Your task to perform on an android device: Open the web browser Image 0: 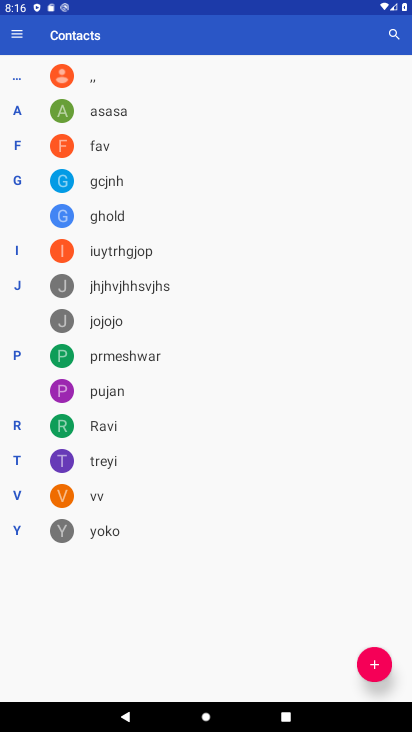
Step 0: press home button
Your task to perform on an android device: Open the web browser Image 1: 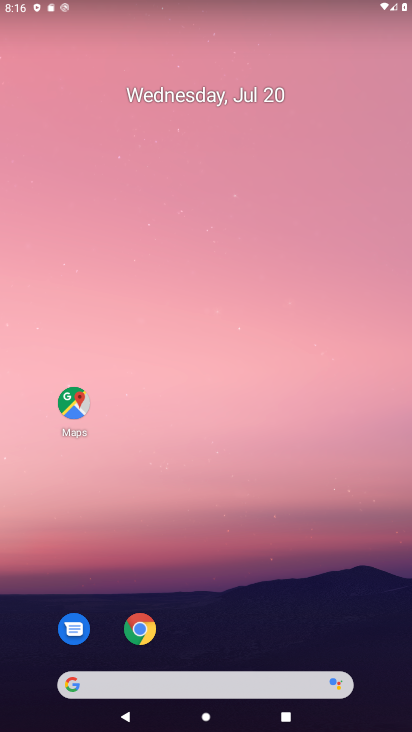
Step 1: click (131, 634)
Your task to perform on an android device: Open the web browser Image 2: 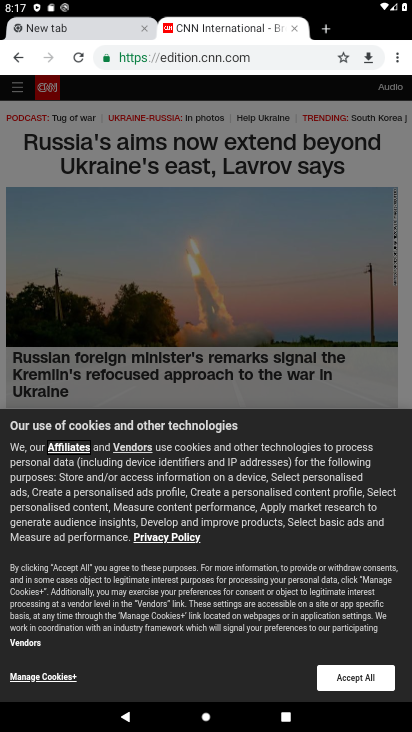
Step 2: task complete